Your task to perform on an android device: turn off translation in the chrome app Image 0: 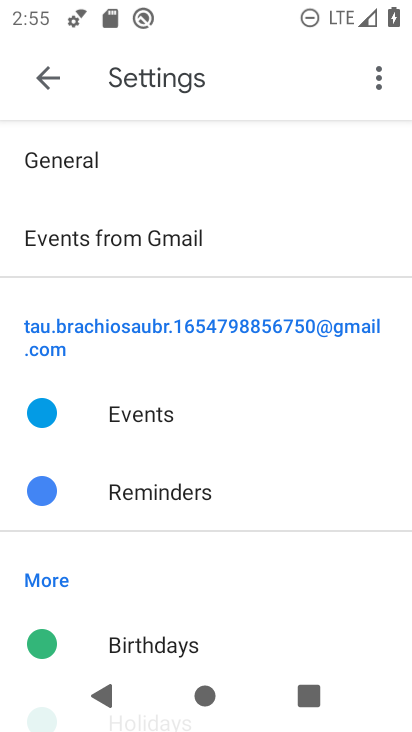
Step 0: press home button
Your task to perform on an android device: turn off translation in the chrome app Image 1: 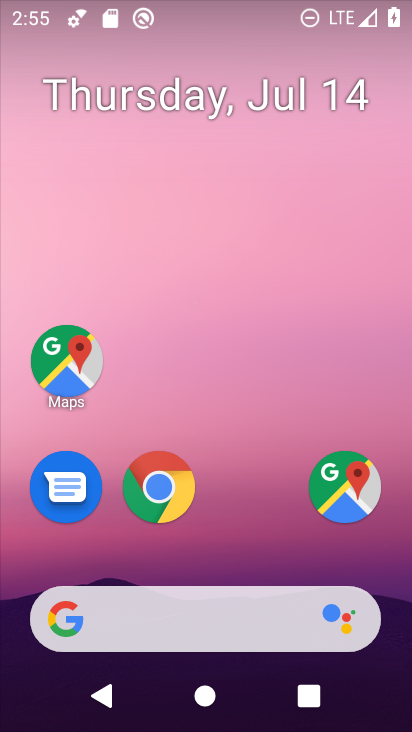
Step 1: drag from (268, 551) to (281, 192)
Your task to perform on an android device: turn off translation in the chrome app Image 2: 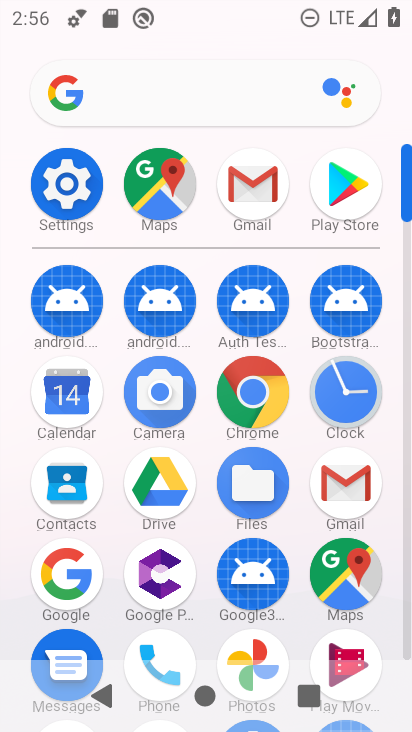
Step 2: click (269, 387)
Your task to perform on an android device: turn off translation in the chrome app Image 3: 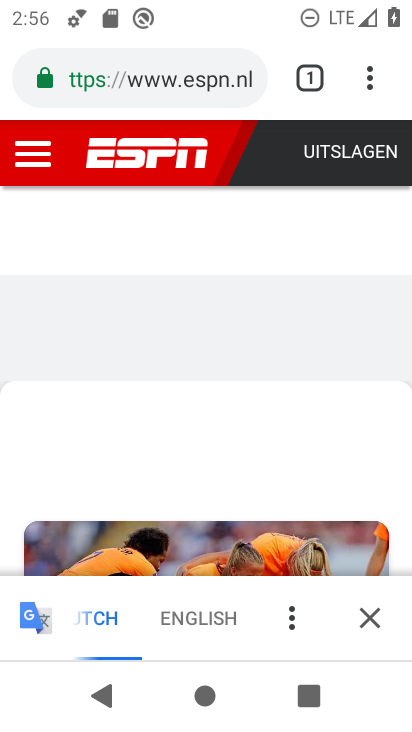
Step 3: click (373, 92)
Your task to perform on an android device: turn off translation in the chrome app Image 4: 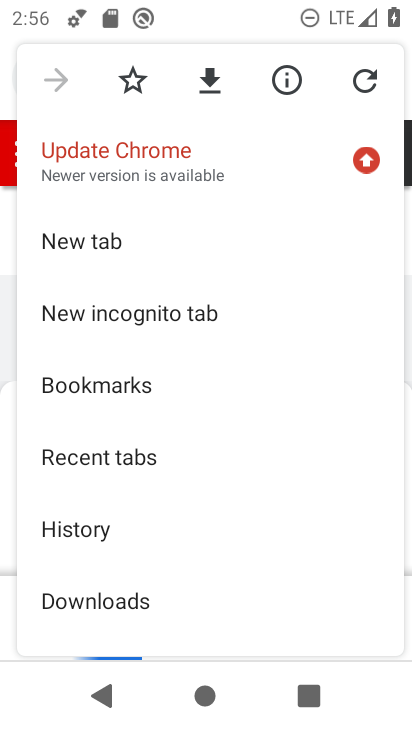
Step 4: drag from (309, 498) to (326, 399)
Your task to perform on an android device: turn off translation in the chrome app Image 5: 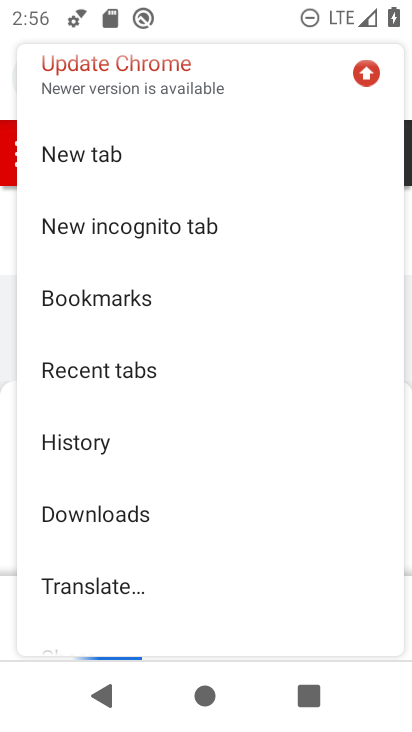
Step 5: drag from (317, 536) to (319, 422)
Your task to perform on an android device: turn off translation in the chrome app Image 6: 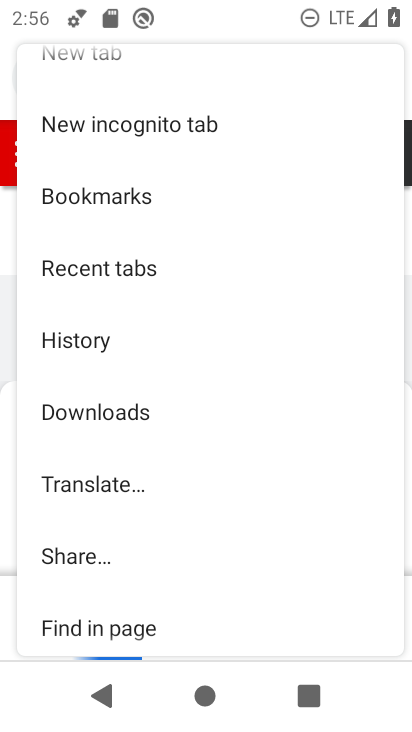
Step 6: drag from (309, 483) to (304, 348)
Your task to perform on an android device: turn off translation in the chrome app Image 7: 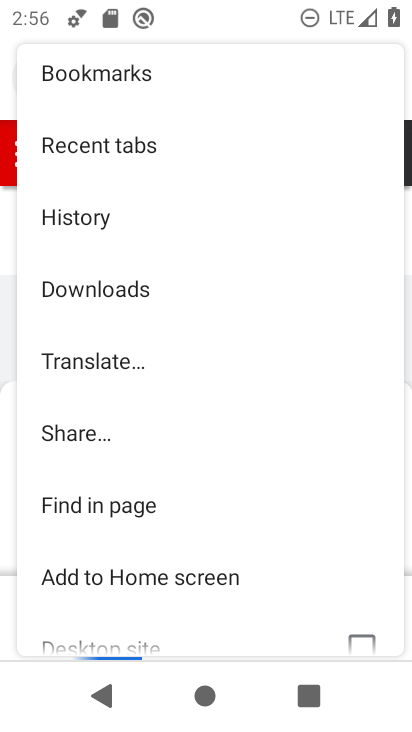
Step 7: drag from (305, 490) to (314, 353)
Your task to perform on an android device: turn off translation in the chrome app Image 8: 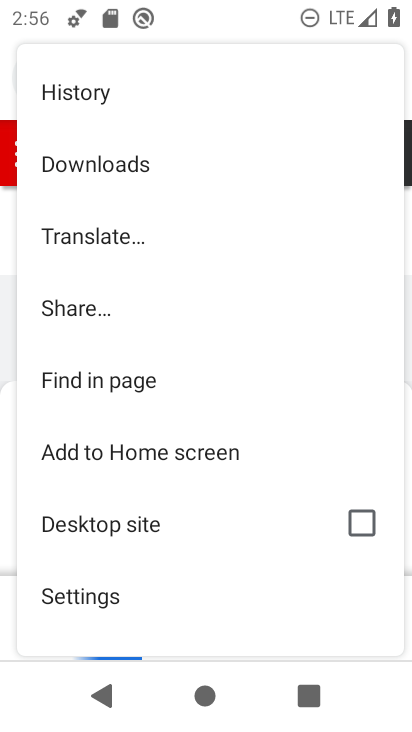
Step 8: drag from (292, 527) to (299, 392)
Your task to perform on an android device: turn off translation in the chrome app Image 9: 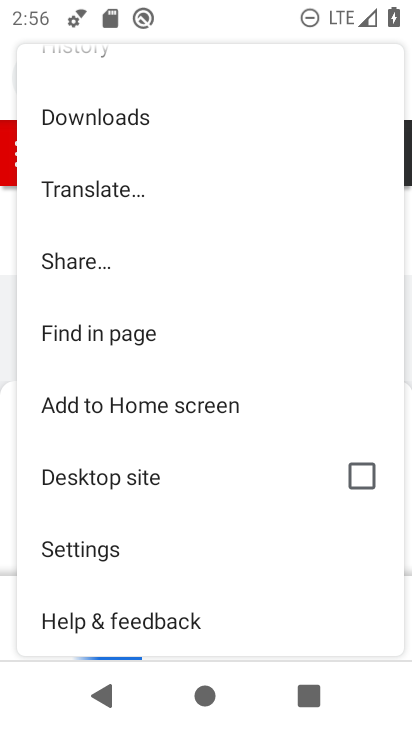
Step 9: drag from (289, 284) to (290, 361)
Your task to perform on an android device: turn off translation in the chrome app Image 10: 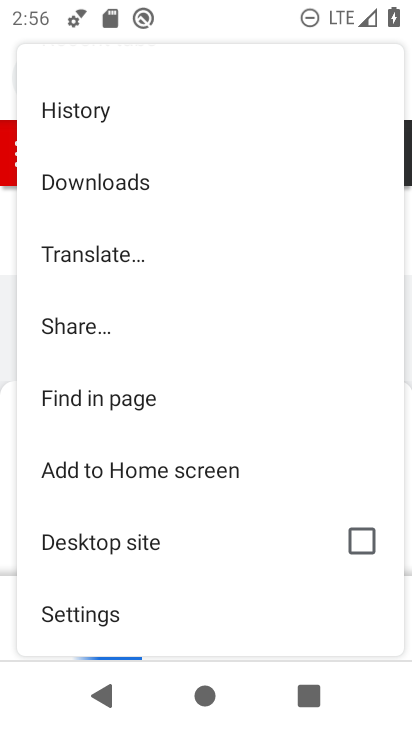
Step 10: drag from (290, 251) to (292, 346)
Your task to perform on an android device: turn off translation in the chrome app Image 11: 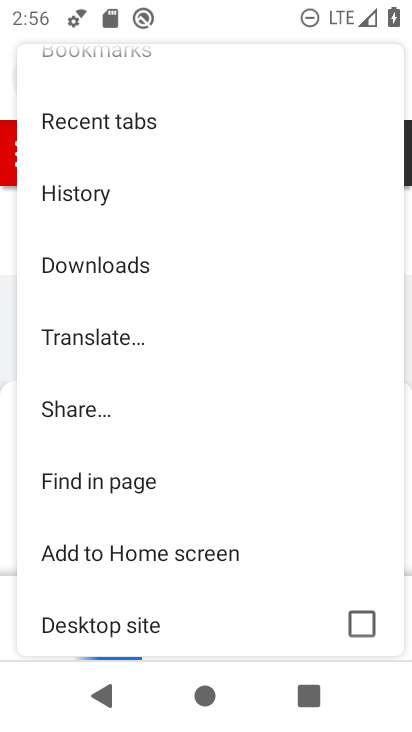
Step 11: drag from (283, 523) to (287, 293)
Your task to perform on an android device: turn off translation in the chrome app Image 12: 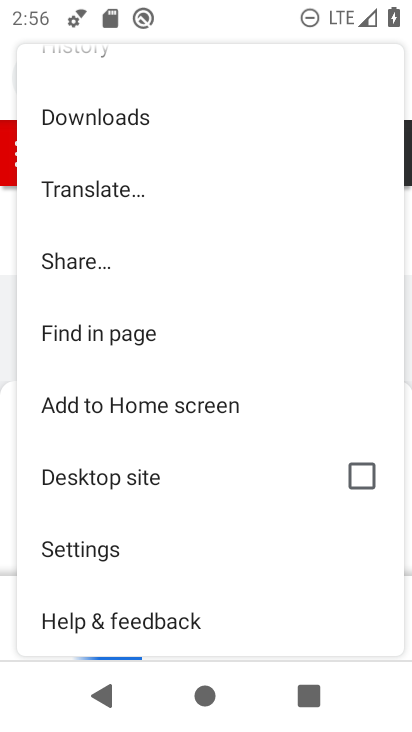
Step 12: click (81, 541)
Your task to perform on an android device: turn off translation in the chrome app Image 13: 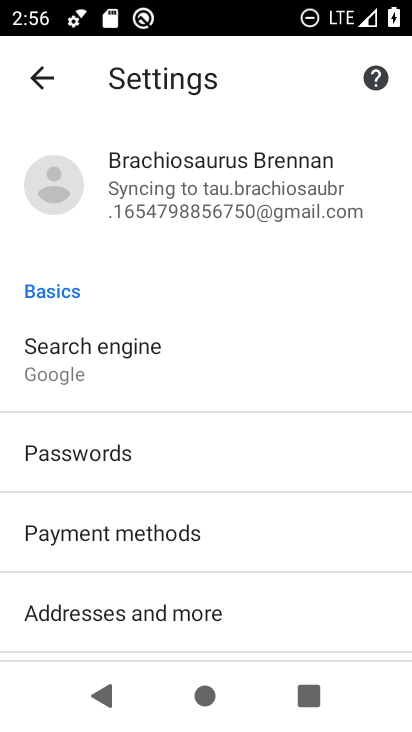
Step 13: drag from (356, 555) to (353, 392)
Your task to perform on an android device: turn off translation in the chrome app Image 14: 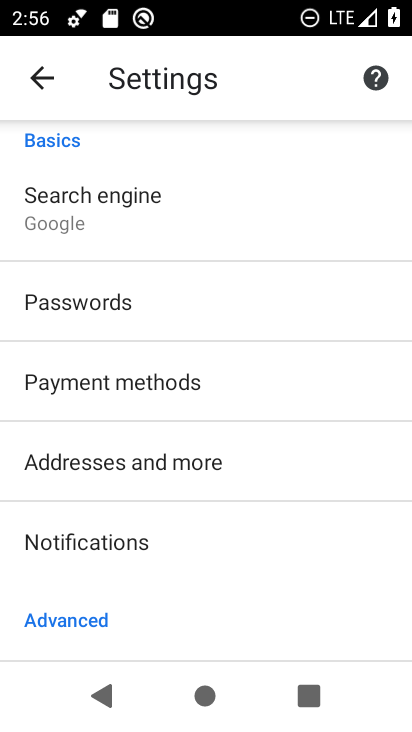
Step 14: drag from (333, 582) to (333, 350)
Your task to perform on an android device: turn off translation in the chrome app Image 15: 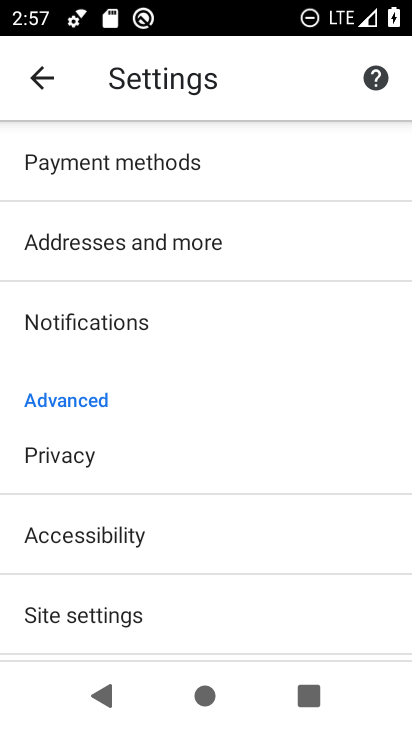
Step 15: drag from (305, 559) to (299, 409)
Your task to perform on an android device: turn off translation in the chrome app Image 16: 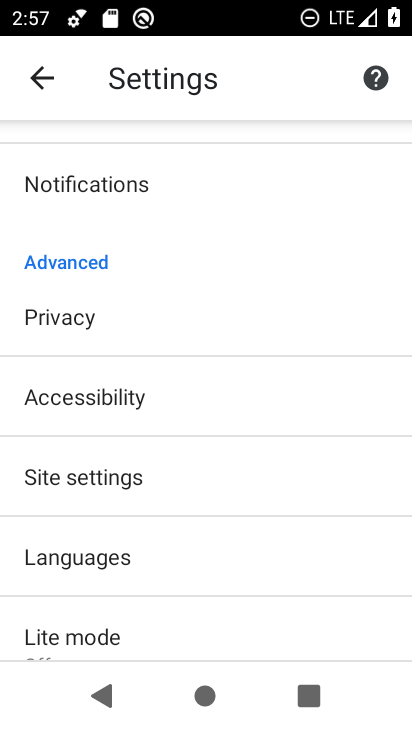
Step 16: drag from (200, 625) to (199, 512)
Your task to perform on an android device: turn off translation in the chrome app Image 17: 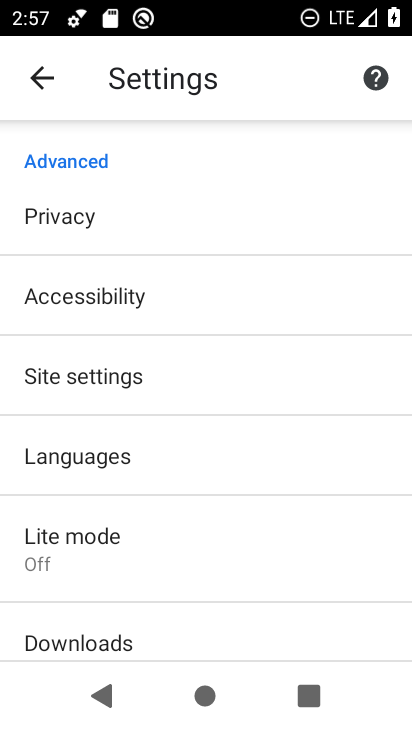
Step 17: click (187, 464)
Your task to perform on an android device: turn off translation in the chrome app Image 18: 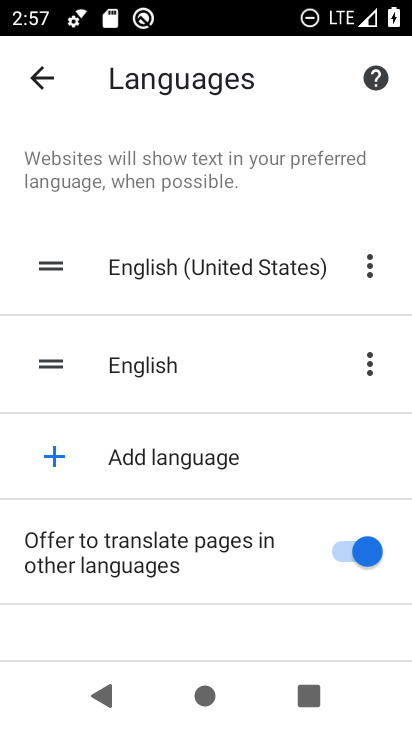
Step 18: click (356, 557)
Your task to perform on an android device: turn off translation in the chrome app Image 19: 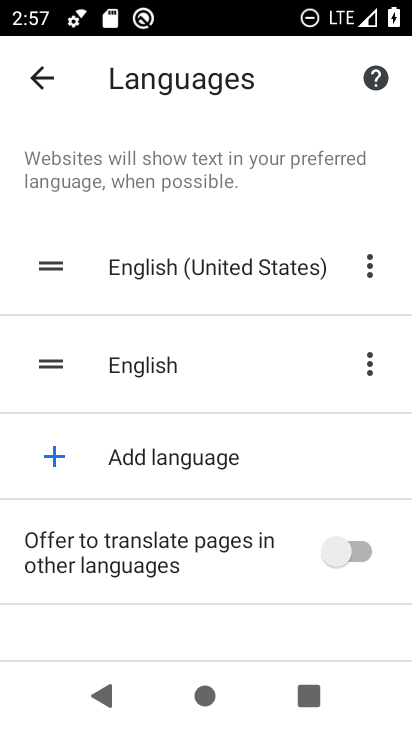
Step 19: task complete